Your task to perform on an android device: change the upload size in google photos Image 0: 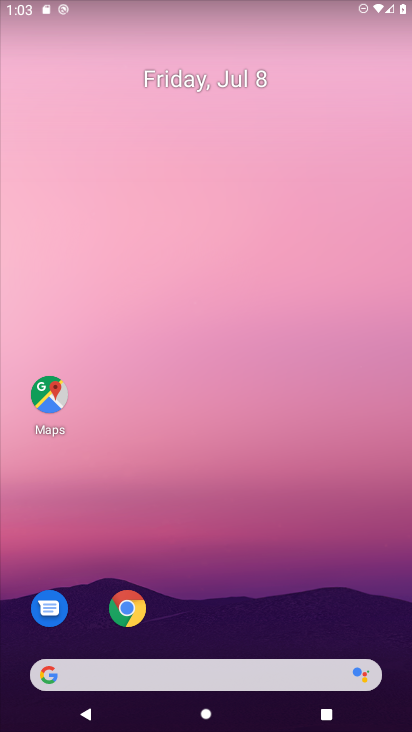
Step 0: drag from (248, 613) to (254, 181)
Your task to perform on an android device: change the upload size in google photos Image 1: 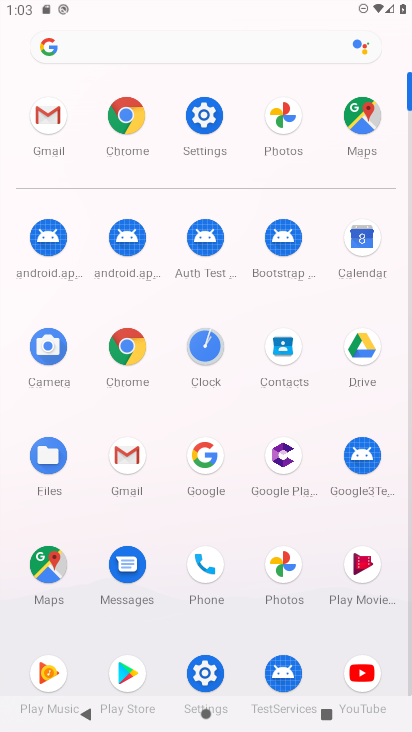
Step 1: click (292, 132)
Your task to perform on an android device: change the upload size in google photos Image 2: 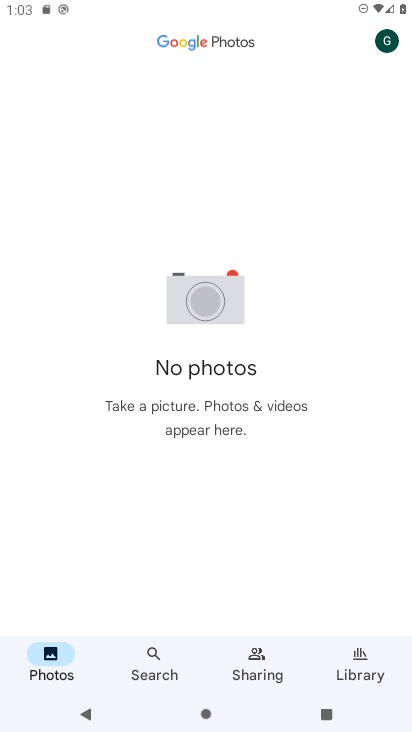
Step 2: click (353, 559)
Your task to perform on an android device: change the upload size in google photos Image 3: 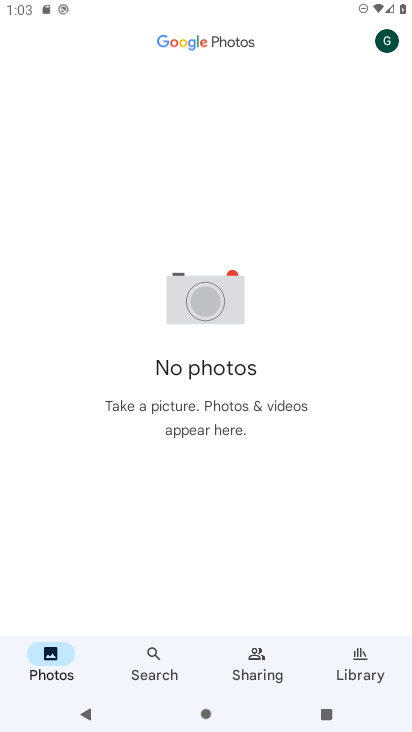
Step 3: click (353, 649)
Your task to perform on an android device: change the upload size in google photos Image 4: 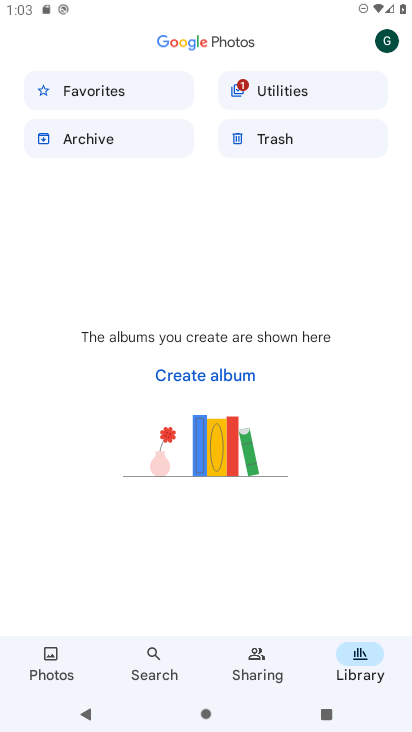
Step 4: click (377, 60)
Your task to perform on an android device: change the upload size in google photos Image 5: 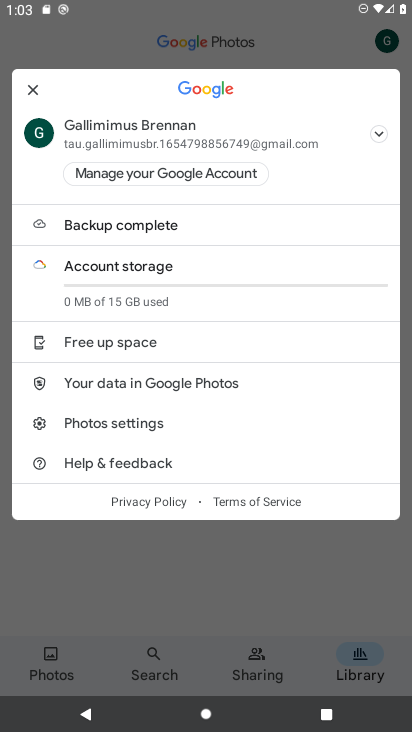
Step 5: click (167, 224)
Your task to perform on an android device: change the upload size in google photos Image 6: 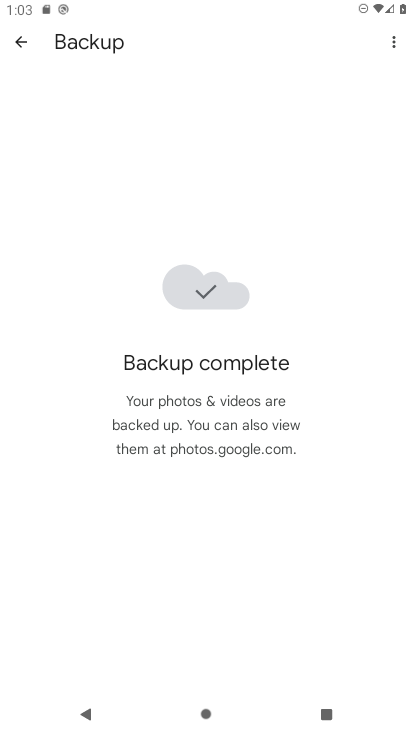
Step 6: task complete